Your task to perform on an android device: Go to Google maps Image 0: 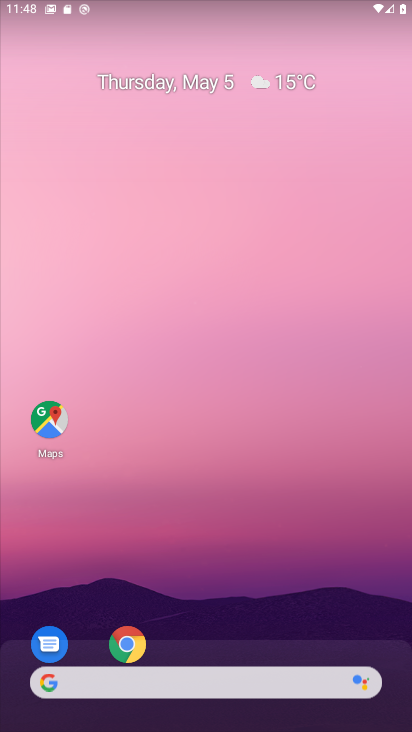
Step 0: drag from (248, 554) to (148, 20)
Your task to perform on an android device: Go to Google maps Image 1: 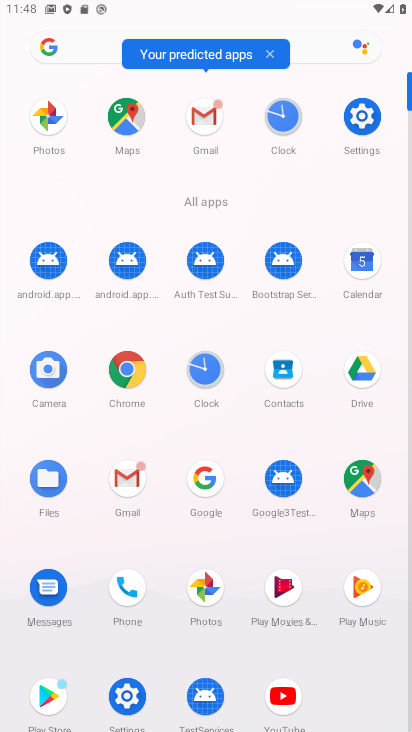
Step 1: drag from (7, 602) to (7, 335)
Your task to perform on an android device: Go to Google maps Image 2: 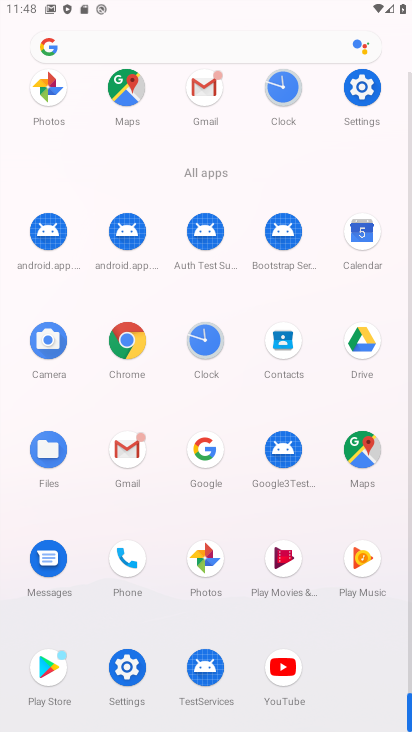
Step 2: click (356, 447)
Your task to perform on an android device: Go to Google maps Image 3: 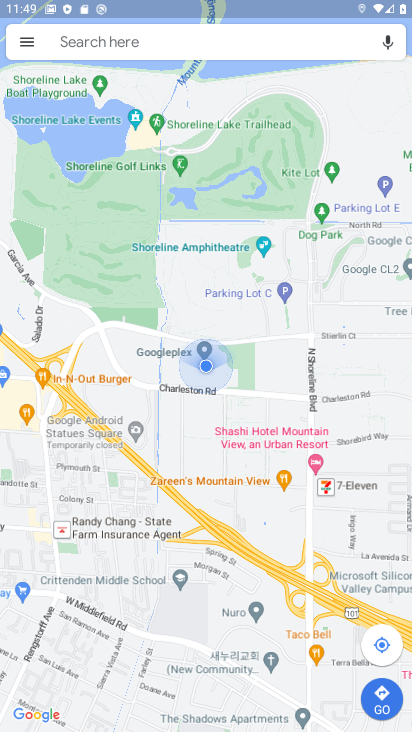
Step 3: task complete